Your task to perform on an android device: Open settings on Google Maps Image 0: 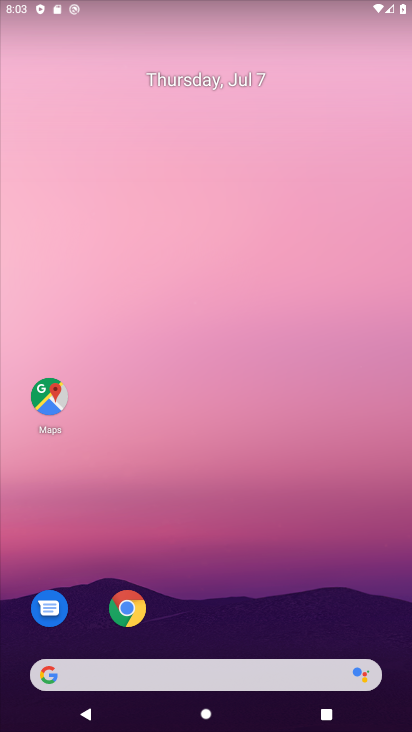
Step 0: click (44, 409)
Your task to perform on an android device: Open settings on Google Maps Image 1: 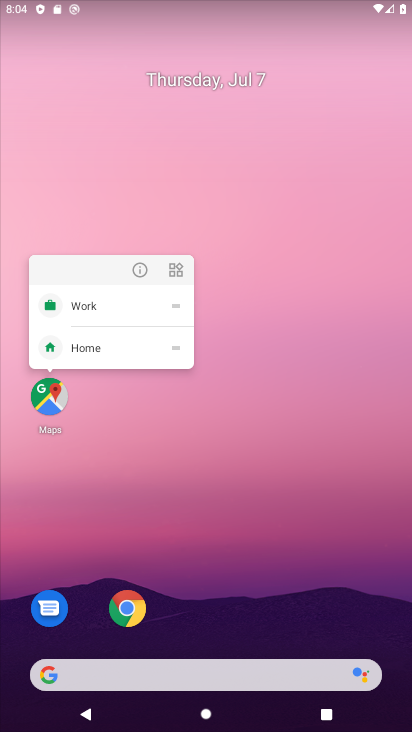
Step 1: click (46, 407)
Your task to perform on an android device: Open settings on Google Maps Image 2: 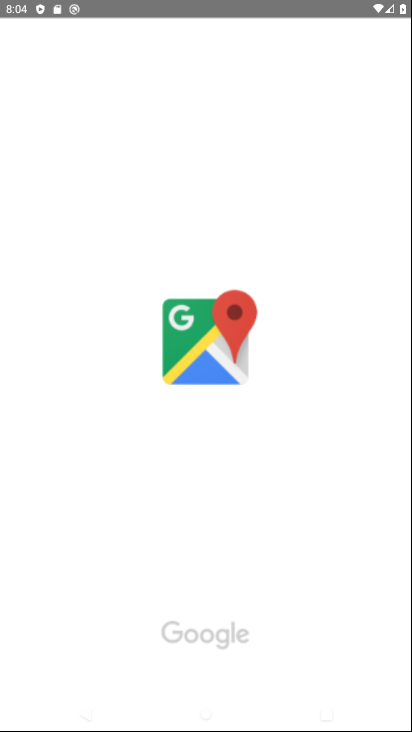
Step 2: task complete